Your task to perform on an android device: Toggle the flashlight Image 0: 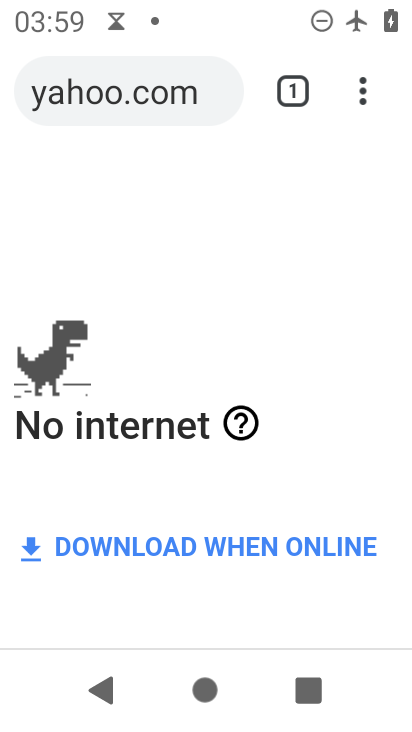
Step 0: press home button
Your task to perform on an android device: Toggle the flashlight Image 1: 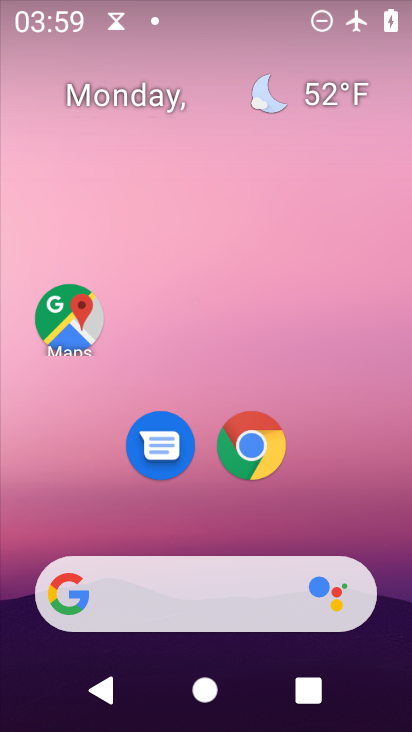
Step 1: drag from (176, 548) to (168, 33)
Your task to perform on an android device: Toggle the flashlight Image 2: 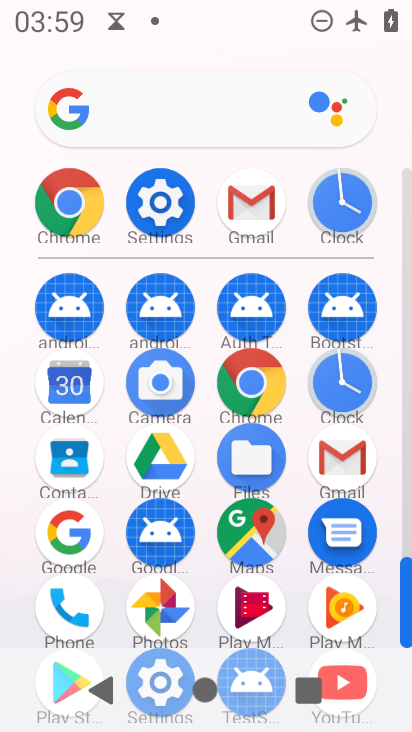
Step 2: click (158, 207)
Your task to perform on an android device: Toggle the flashlight Image 3: 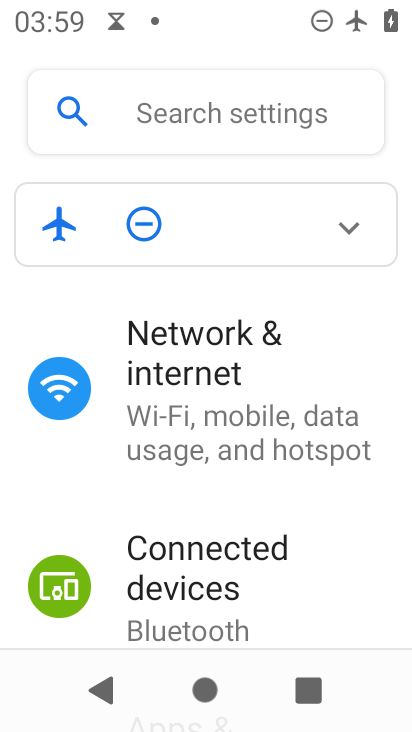
Step 3: click (205, 122)
Your task to perform on an android device: Toggle the flashlight Image 4: 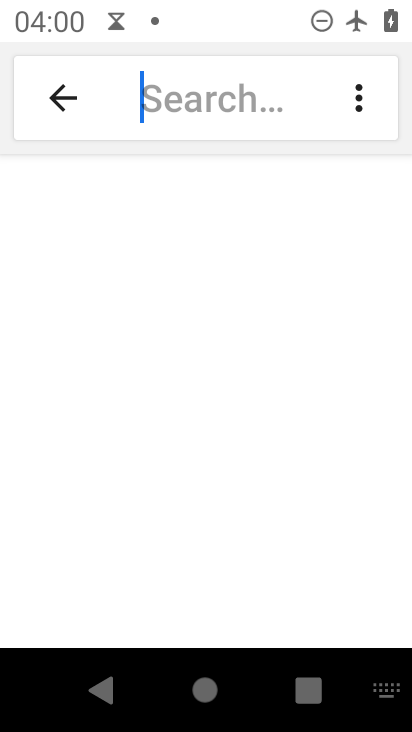
Step 4: type "flashlight"
Your task to perform on an android device: Toggle the flashlight Image 5: 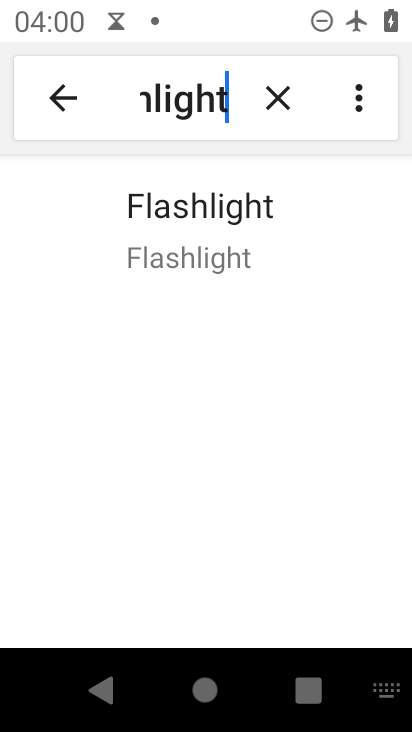
Step 5: click (194, 204)
Your task to perform on an android device: Toggle the flashlight Image 6: 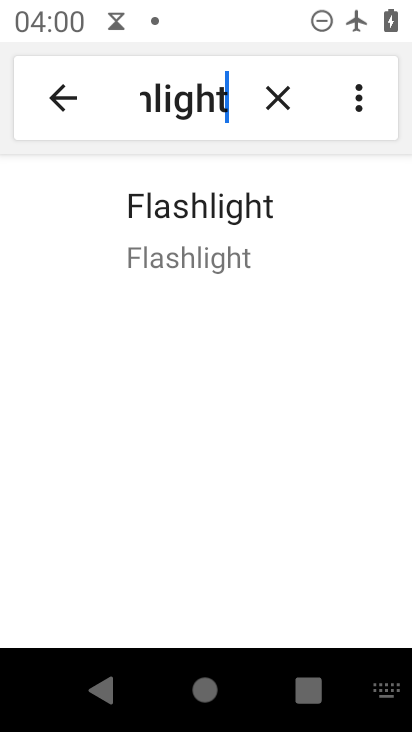
Step 6: click (194, 204)
Your task to perform on an android device: Toggle the flashlight Image 7: 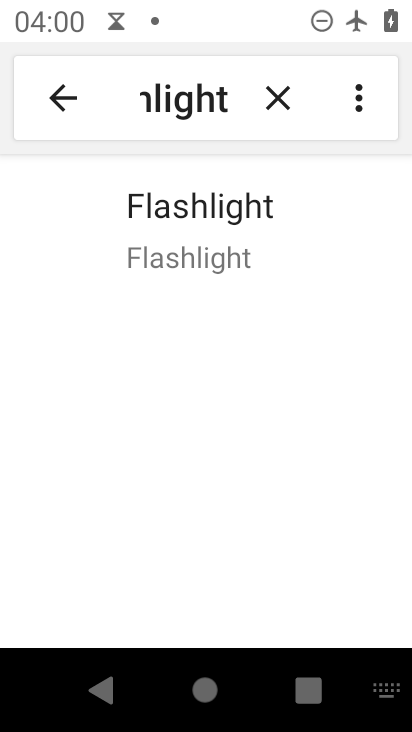
Step 7: click (195, 205)
Your task to perform on an android device: Toggle the flashlight Image 8: 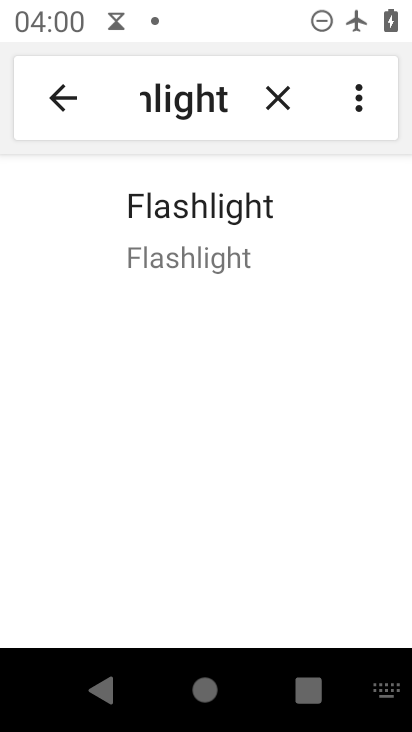
Step 8: task complete